Your task to perform on an android device: Open battery settings Image 0: 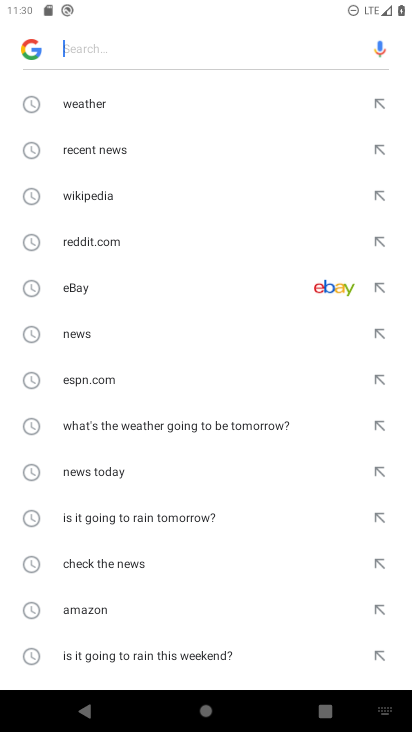
Step 0: press home button
Your task to perform on an android device: Open battery settings Image 1: 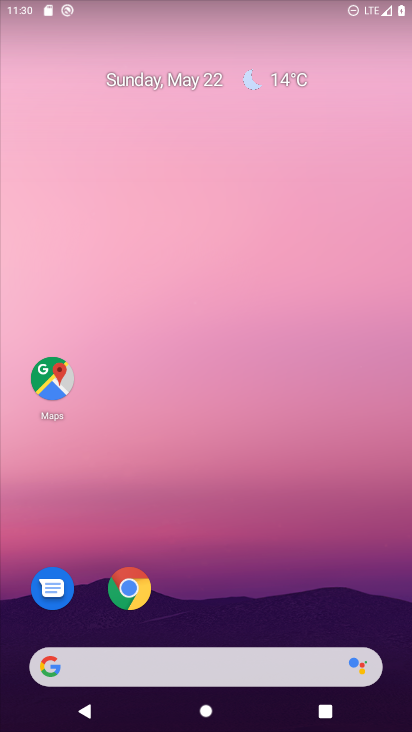
Step 1: drag from (195, 623) to (149, 160)
Your task to perform on an android device: Open battery settings Image 2: 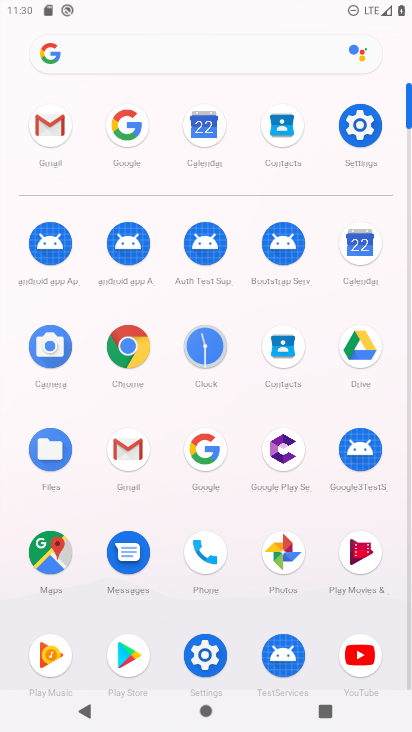
Step 2: click (366, 126)
Your task to perform on an android device: Open battery settings Image 3: 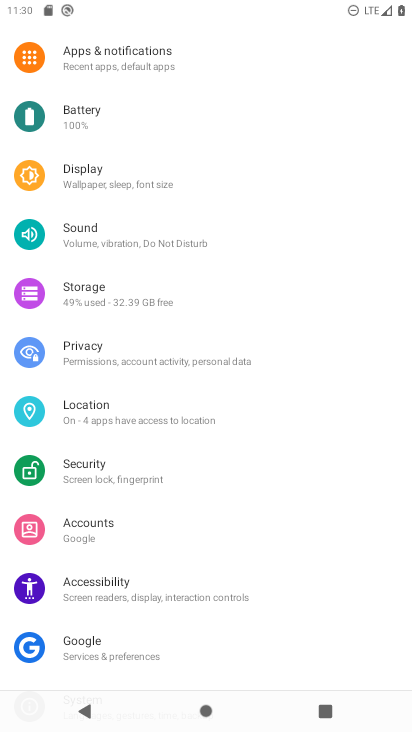
Step 3: click (179, 125)
Your task to perform on an android device: Open battery settings Image 4: 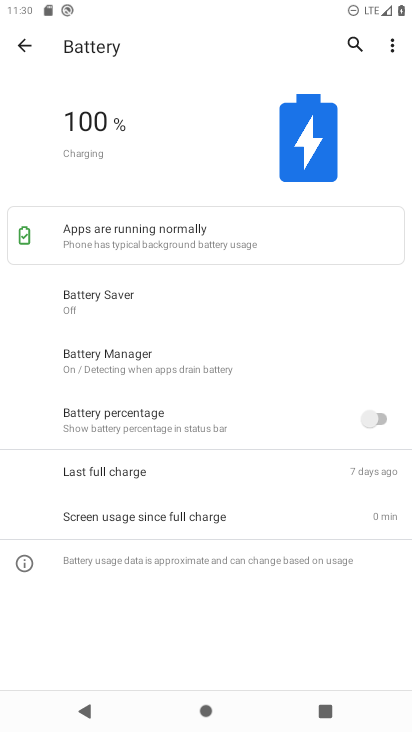
Step 4: task complete